Your task to perform on an android device: What is the news today? Image 0: 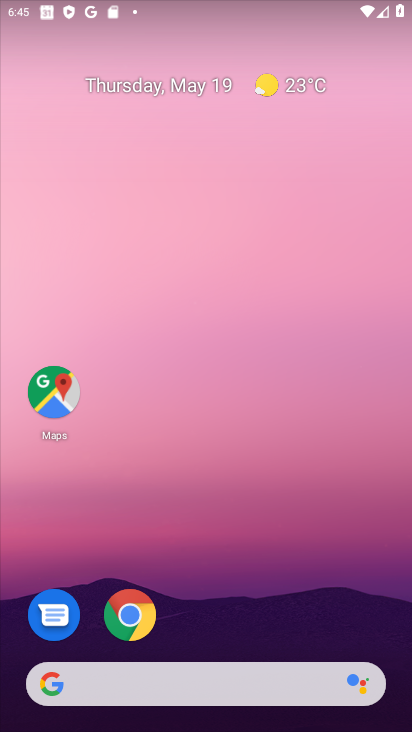
Step 0: drag from (332, 595) to (224, 5)
Your task to perform on an android device: What is the news today? Image 1: 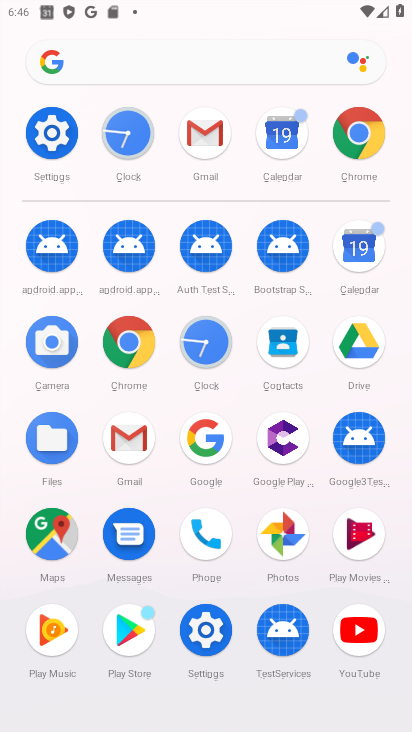
Step 1: click (222, 450)
Your task to perform on an android device: What is the news today? Image 2: 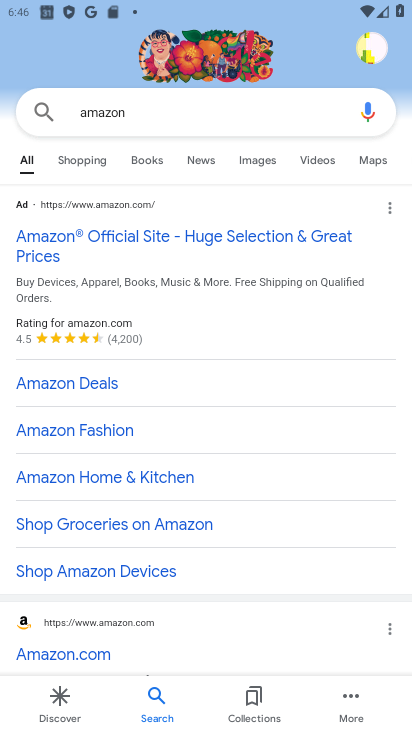
Step 2: press back button
Your task to perform on an android device: What is the news today? Image 3: 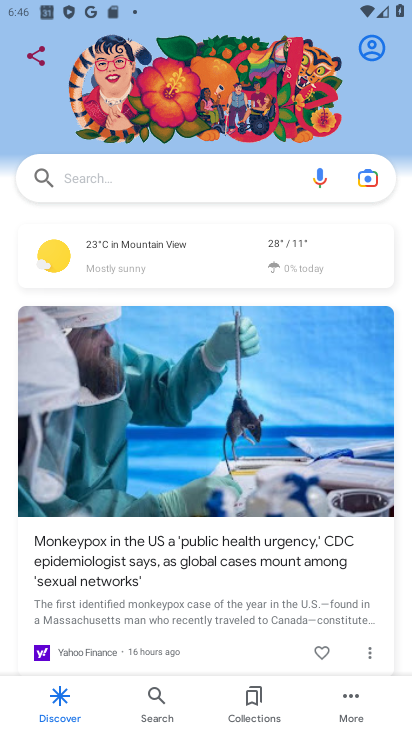
Step 3: click (162, 173)
Your task to perform on an android device: What is the news today? Image 4: 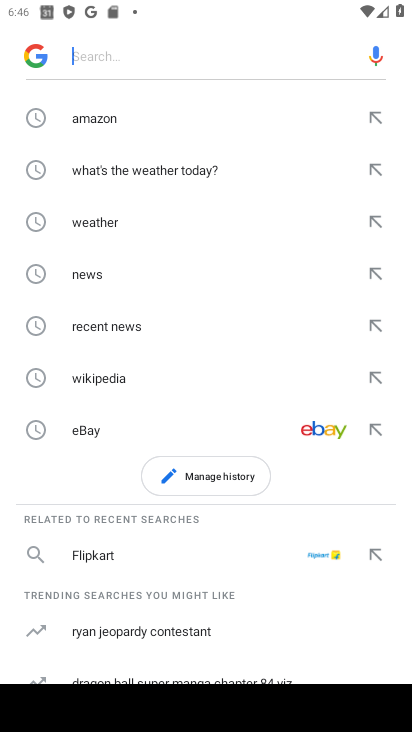
Step 4: drag from (50, 519) to (110, 237)
Your task to perform on an android device: What is the news today? Image 5: 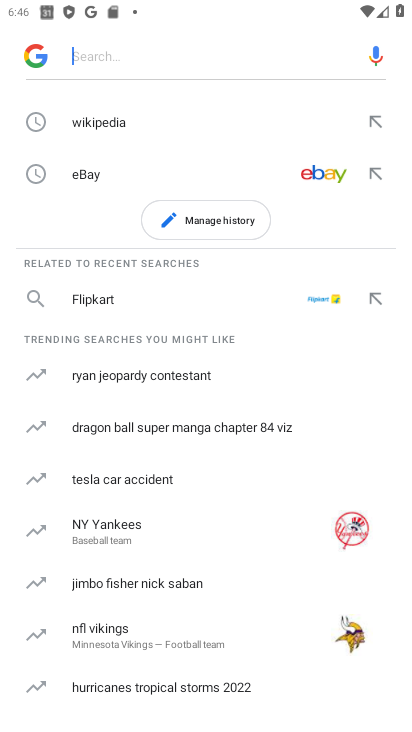
Step 5: drag from (110, 237) to (13, 604)
Your task to perform on an android device: What is the news today? Image 6: 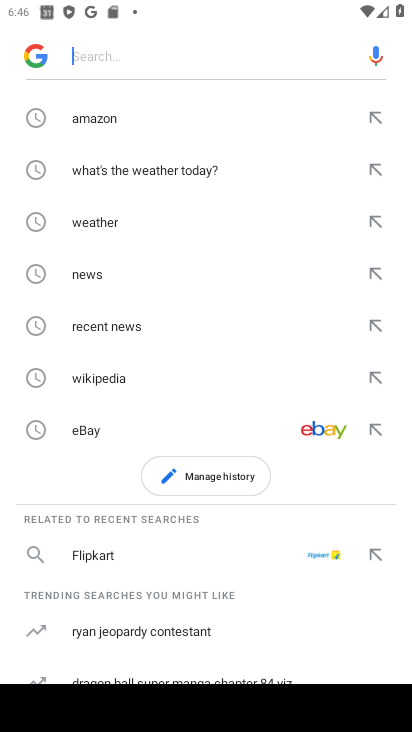
Step 6: type "what is the news today?"
Your task to perform on an android device: What is the news today? Image 7: 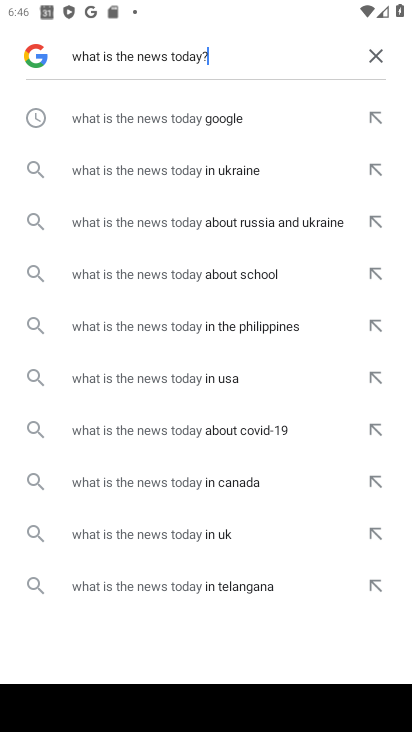
Step 7: click (160, 107)
Your task to perform on an android device: What is the news today? Image 8: 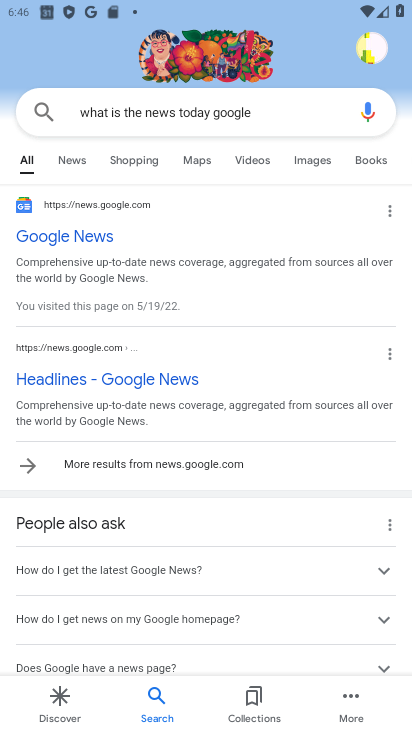
Step 8: task complete